Your task to perform on an android device: turn on translation in the chrome app Image 0: 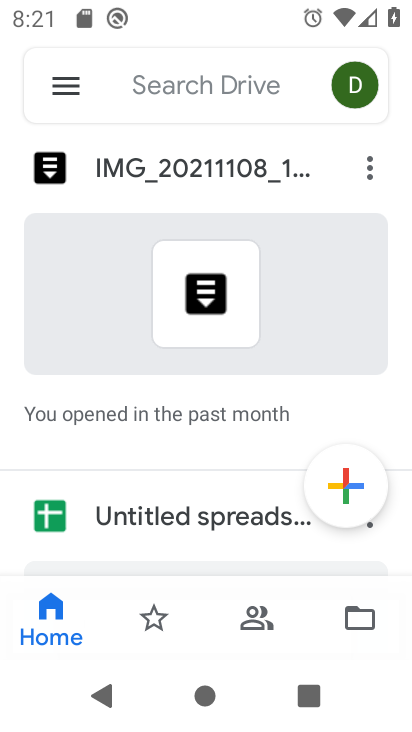
Step 0: press home button
Your task to perform on an android device: turn on translation in the chrome app Image 1: 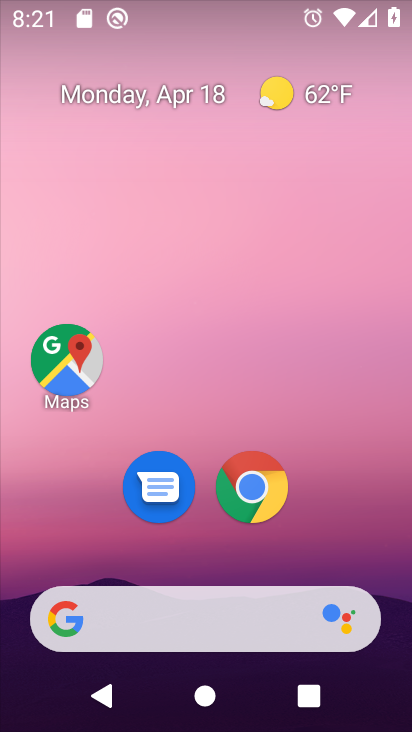
Step 1: click (246, 476)
Your task to perform on an android device: turn on translation in the chrome app Image 2: 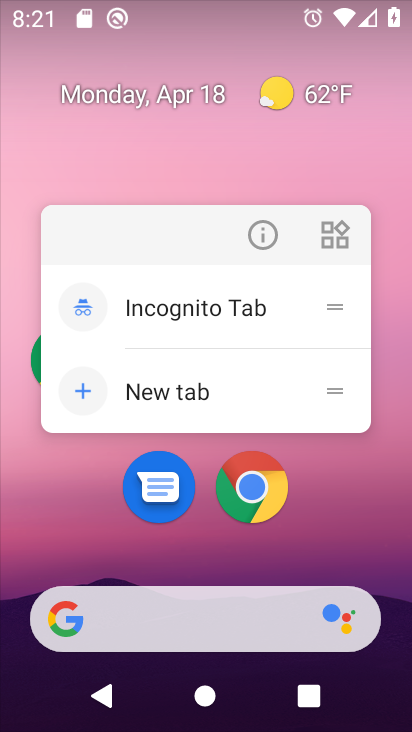
Step 2: click (252, 484)
Your task to perform on an android device: turn on translation in the chrome app Image 3: 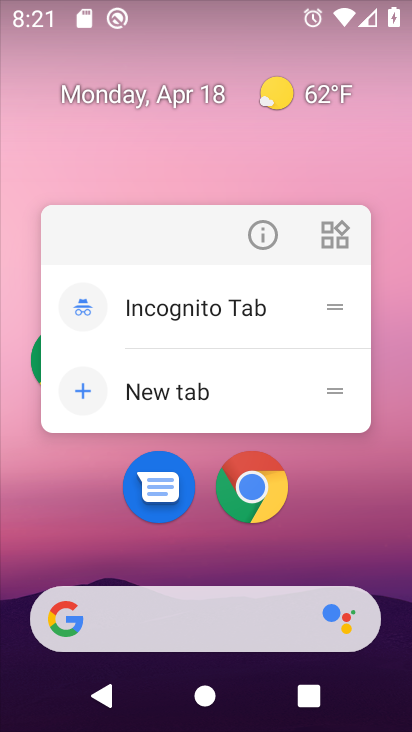
Step 3: click (310, 487)
Your task to perform on an android device: turn on translation in the chrome app Image 4: 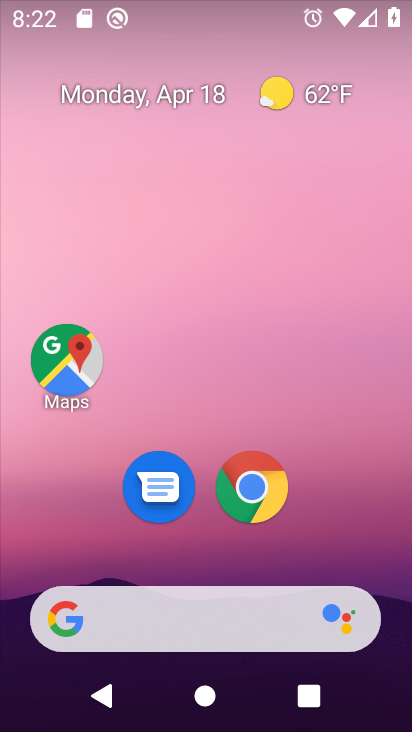
Step 4: click (379, 462)
Your task to perform on an android device: turn on translation in the chrome app Image 5: 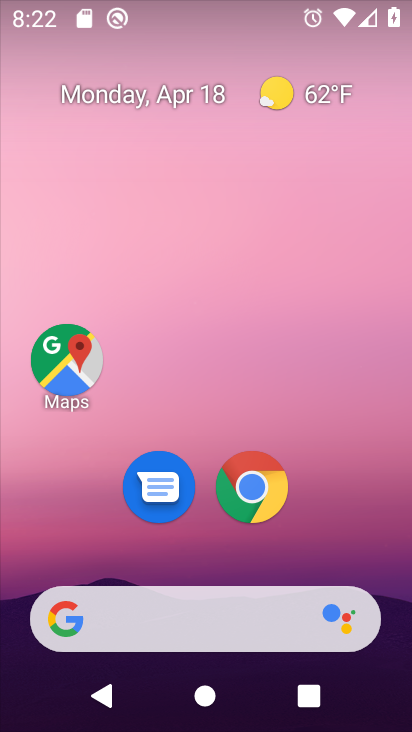
Step 5: click (381, 553)
Your task to perform on an android device: turn on translation in the chrome app Image 6: 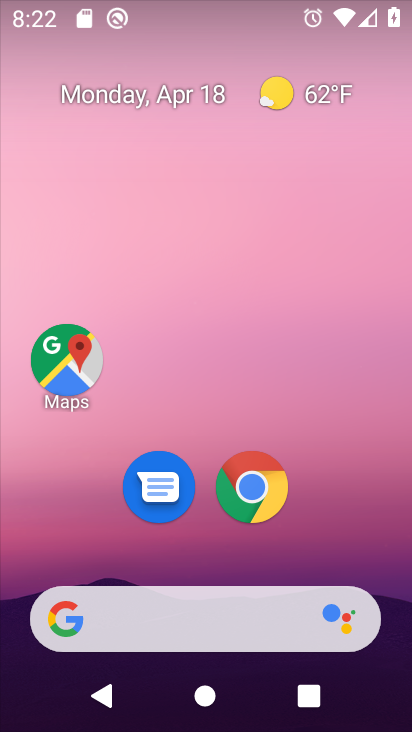
Step 6: click (246, 483)
Your task to perform on an android device: turn on translation in the chrome app Image 7: 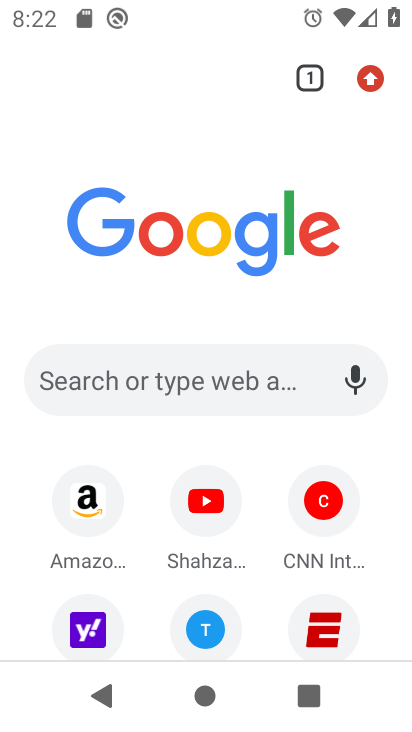
Step 7: click (370, 74)
Your task to perform on an android device: turn on translation in the chrome app Image 8: 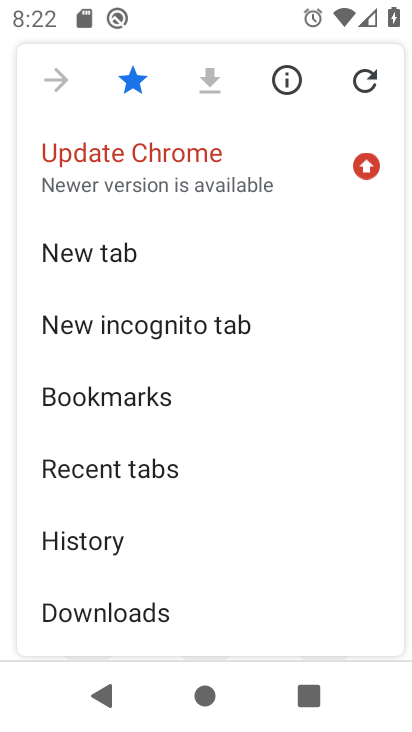
Step 8: drag from (186, 550) to (249, 79)
Your task to perform on an android device: turn on translation in the chrome app Image 9: 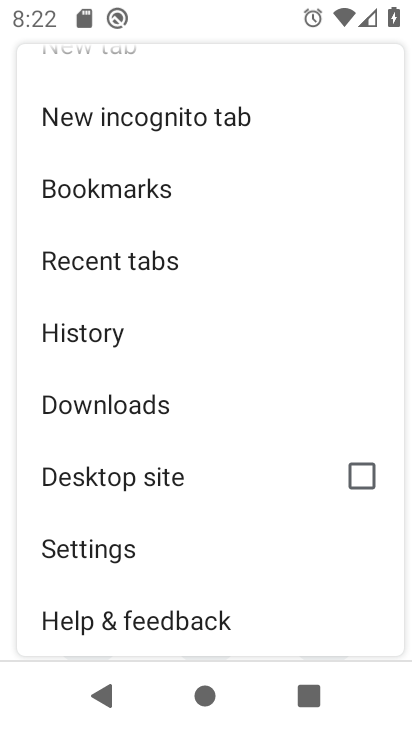
Step 9: click (151, 533)
Your task to perform on an android device: turn on translation in the chrome app Image 10: 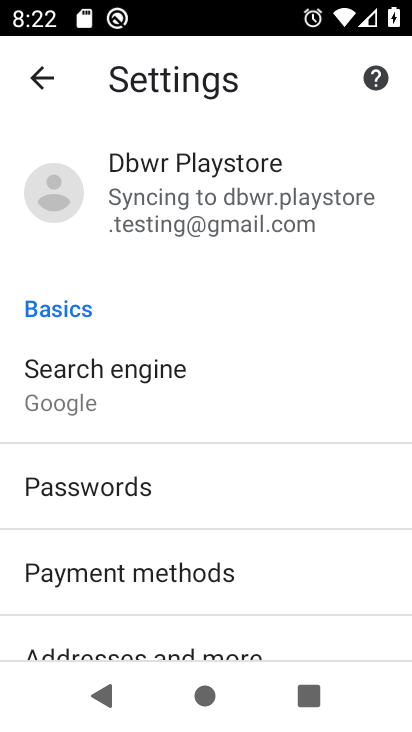
Step 10: drag from (233, 618) to (261, 191)
Your task to perform on an android device: turn on translation in the chrome app Image 11: 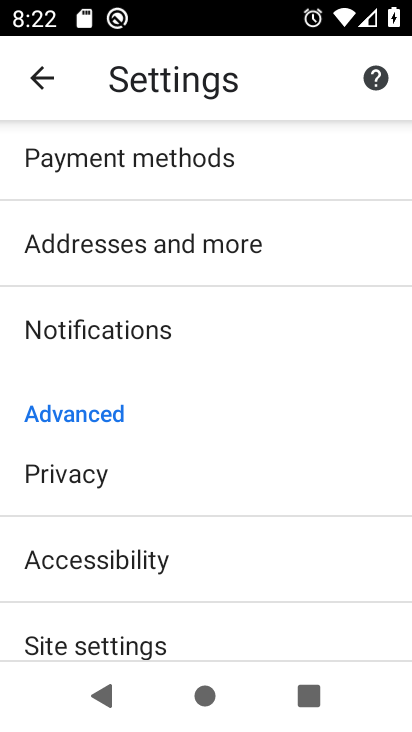
Step 11: drag from (195, 614) to (241, 182)
Your task to perform on an android device: turn on translation in the chrome app Image 12: 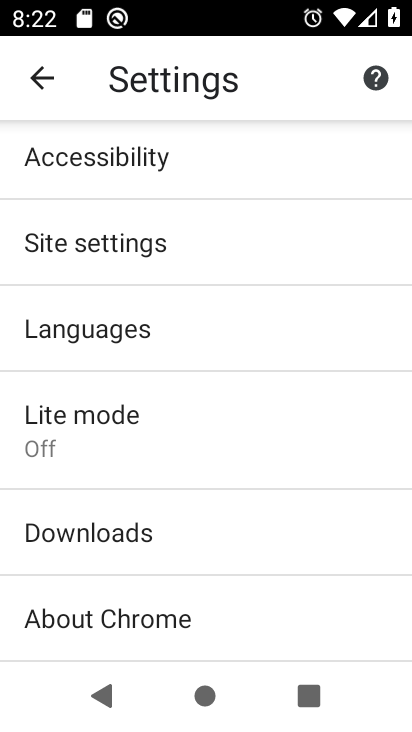
Step 12: click (172, 331)
Your task to perform on an android device: turn on translation in the chrome app Image 13: 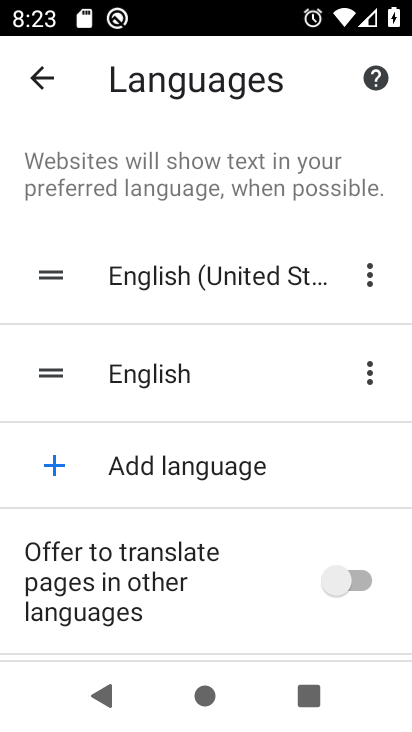
Step 13: click (359, 569)
Your task to perform on an android device: turn on translation in the chrome app Image 14: 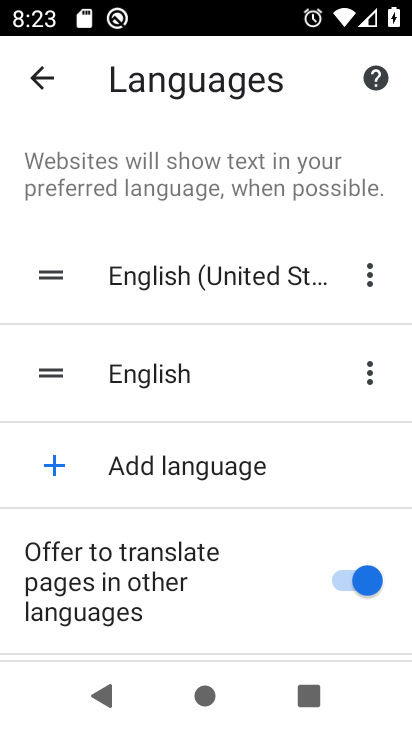
Step 14: task complete